Your task to perform on an android device: Go to privacy settings Image 0: 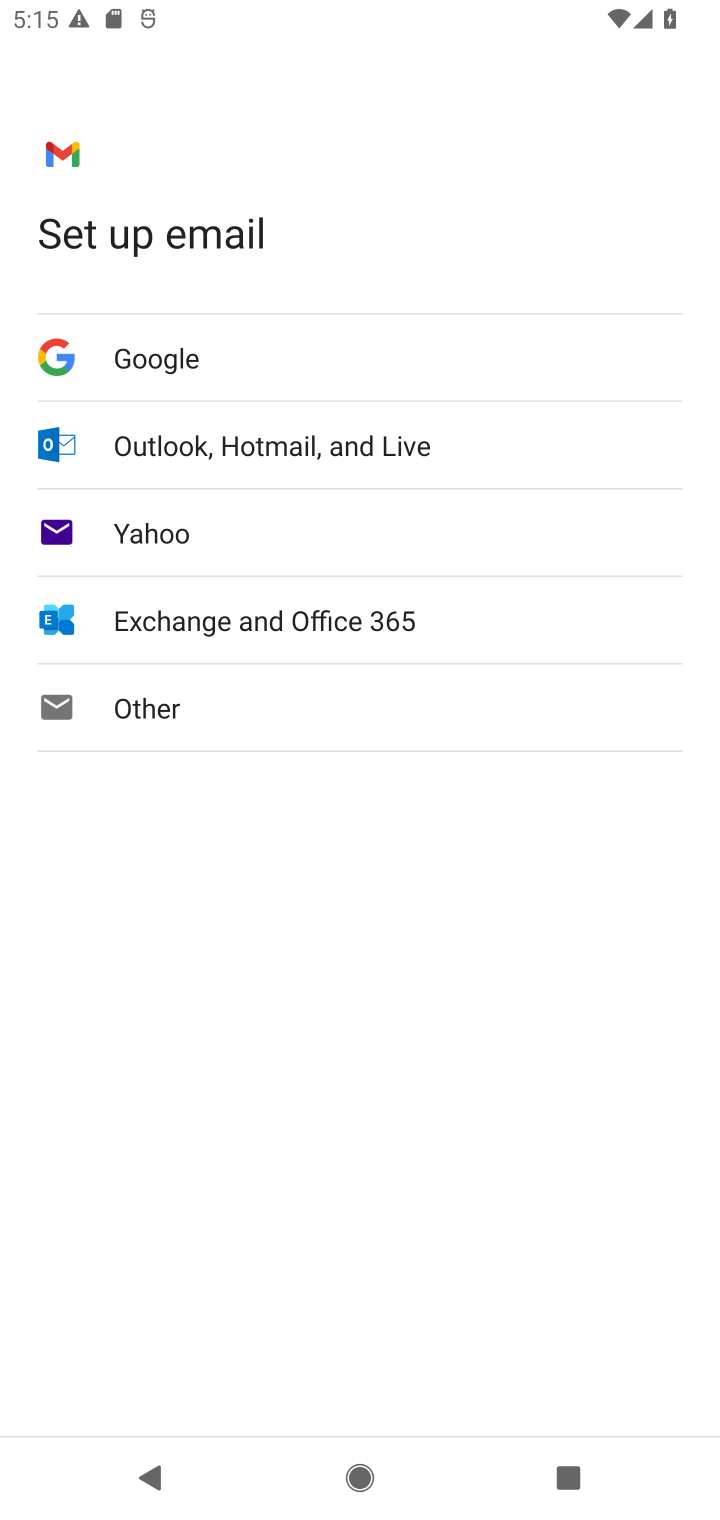
Step 0: press home button
Your task to perform on an android device: Go to privacy settings Image 1: 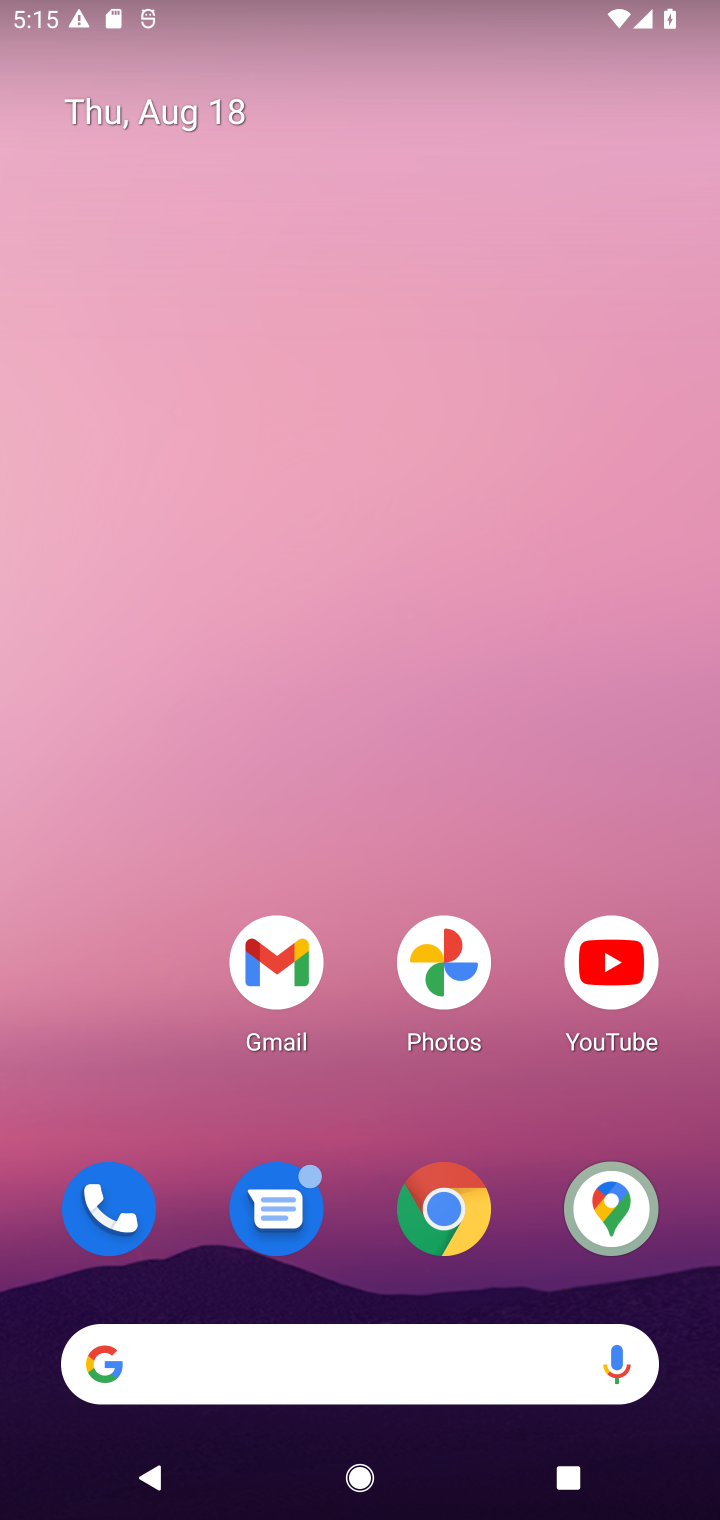
Step 1: drag from (489, 1102) to (305, 286)
Your task to perform on an android device: Go to privacy settings Image 2: 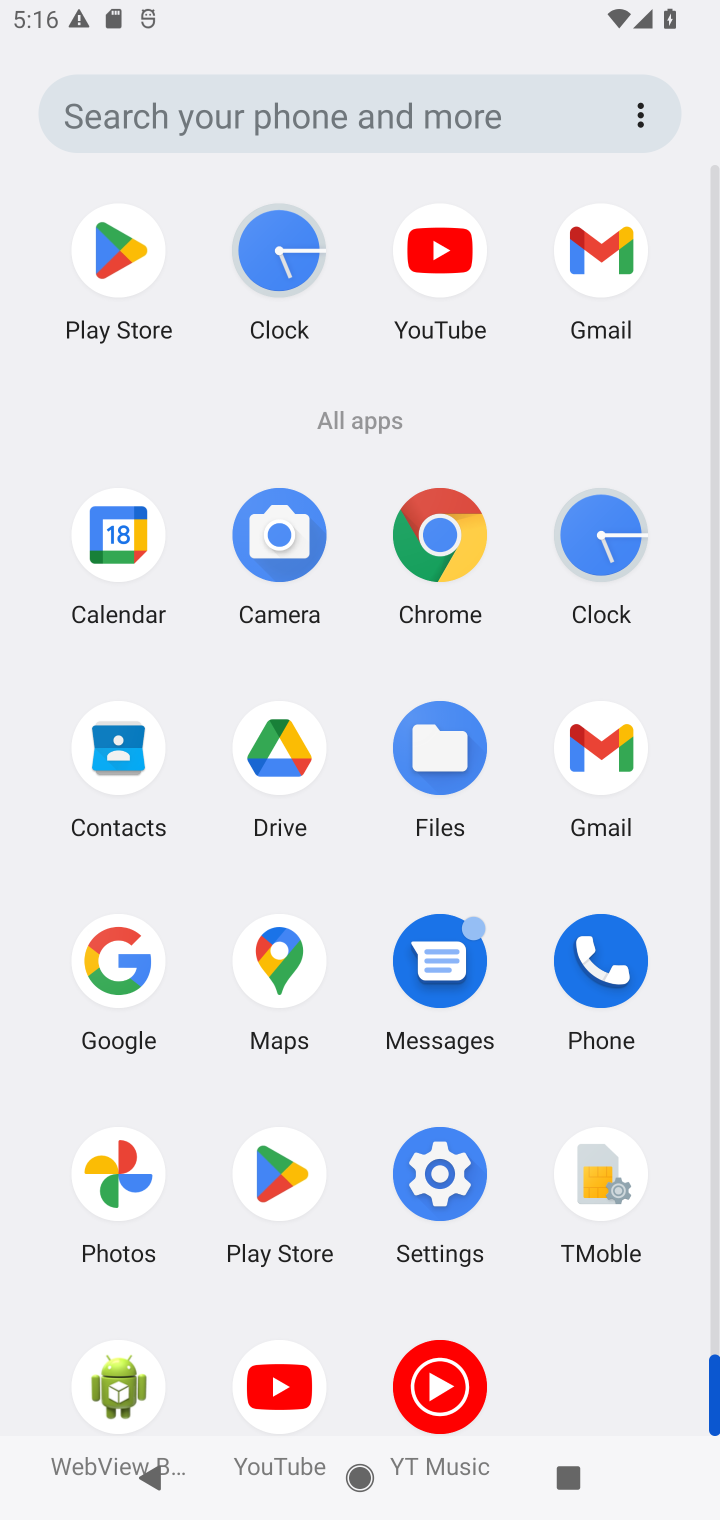
Step 2: click (441, 1168)
Your task to perform on an android device: Go to privacy settings Image 3: 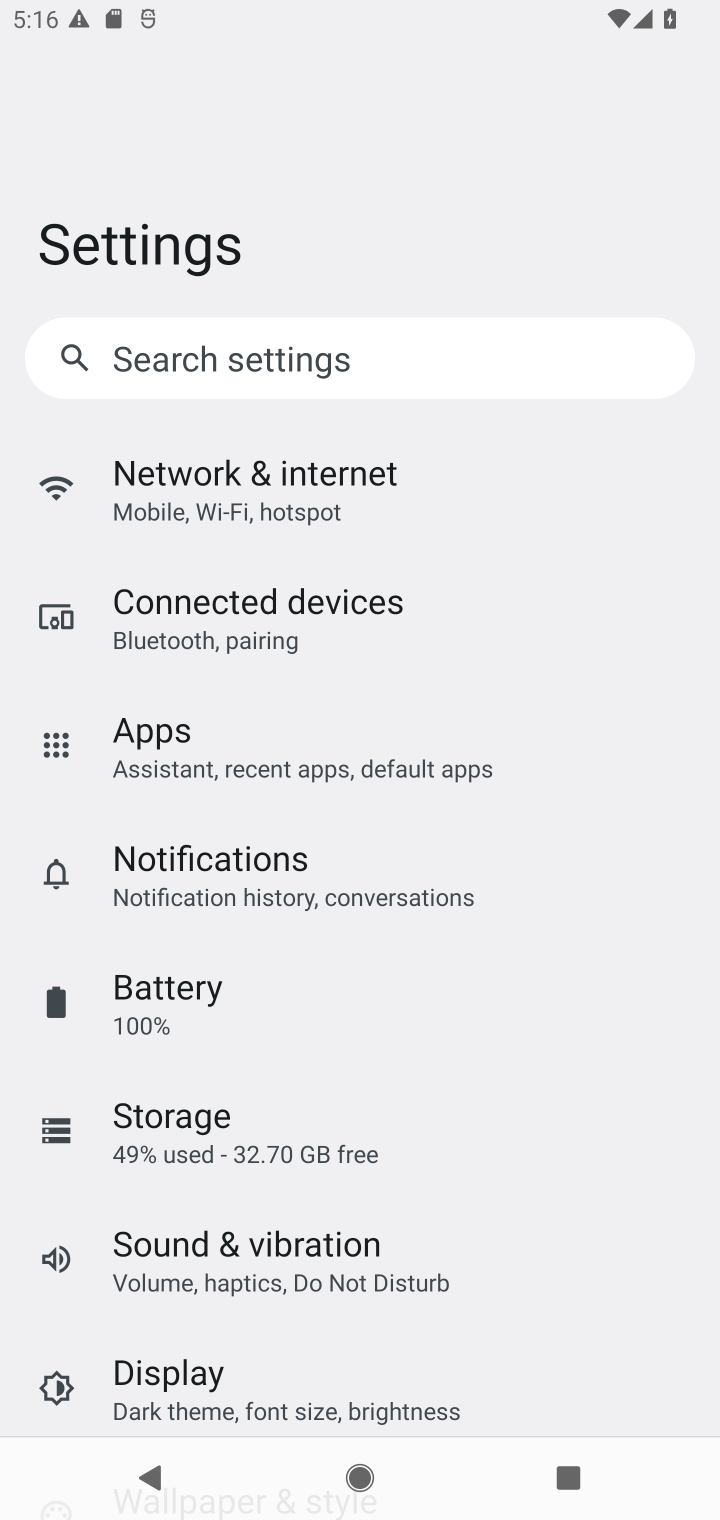
Step 3: drag from (419, 1230) to (377, 473)
Your task to perform on an android device: Go to privacy settings Image 4: 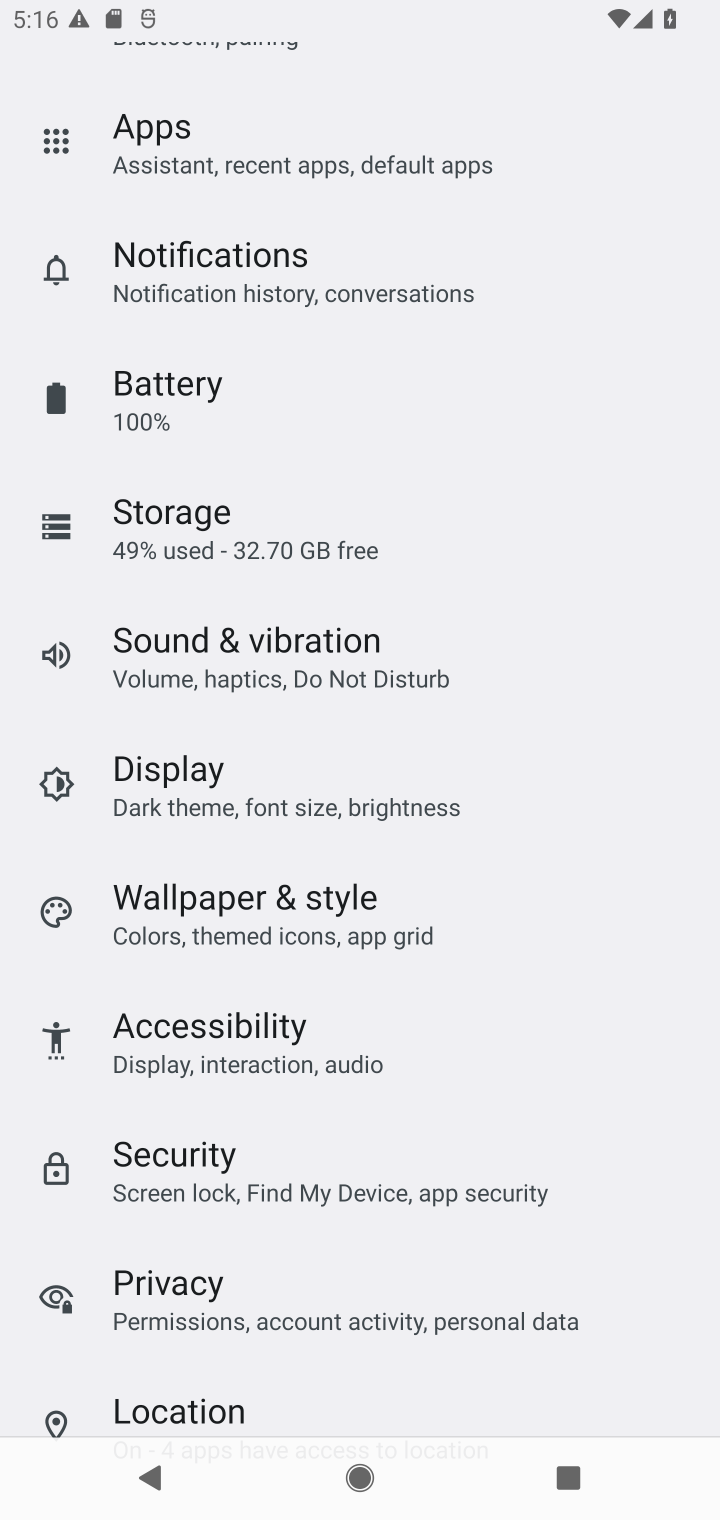
Step 4: click (181, 1302)
Your task to perform on an android device: Go to privacy settings Image 5: 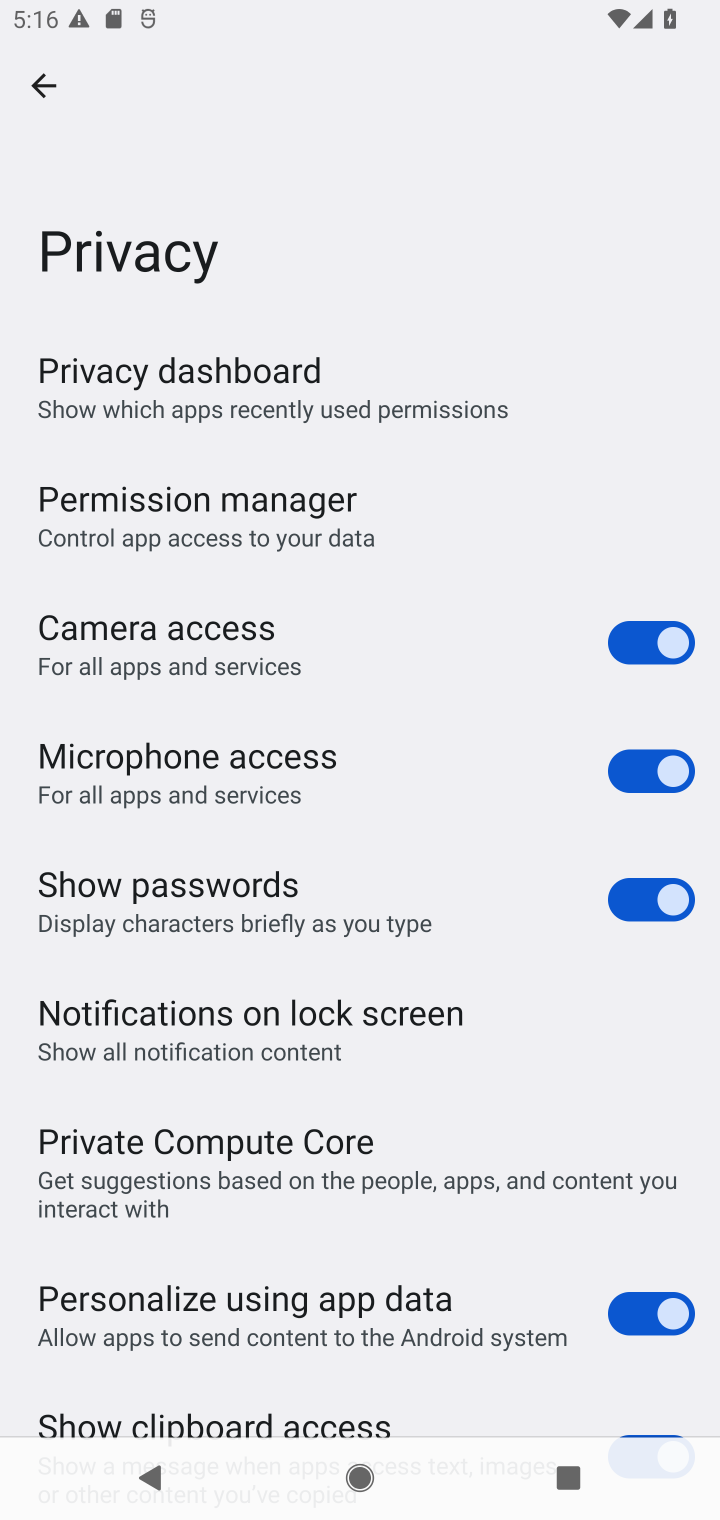
Step 5: task complete